Your task to perform on an android device: show emergency info Image 0: 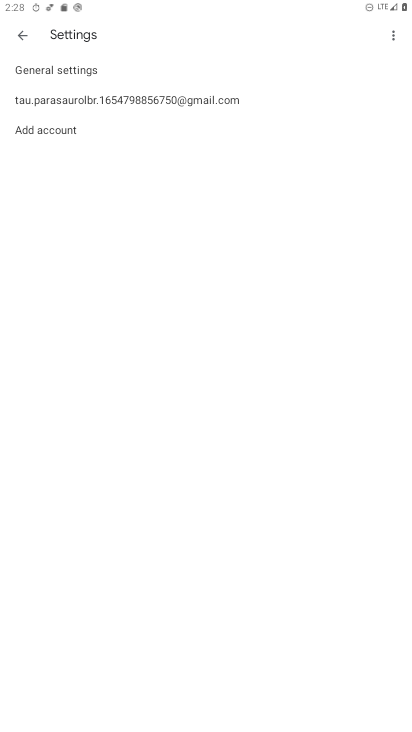
Step 0: click (76, 239)
Your task to perform on an android device: show emergency info Image 1: 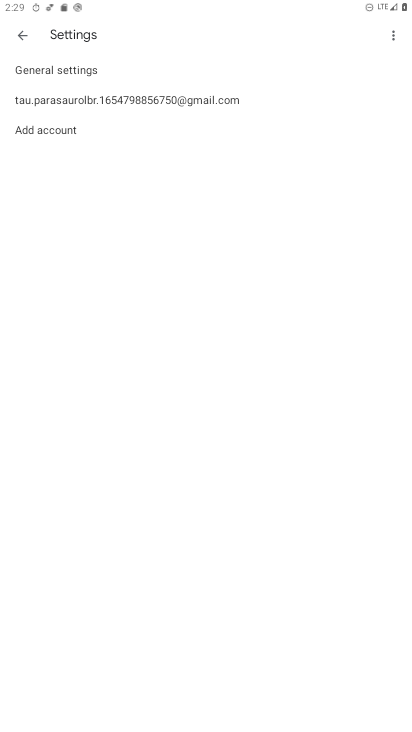
Step 1: press home button
Your task to perform on an android device: show emergency info Image 2: 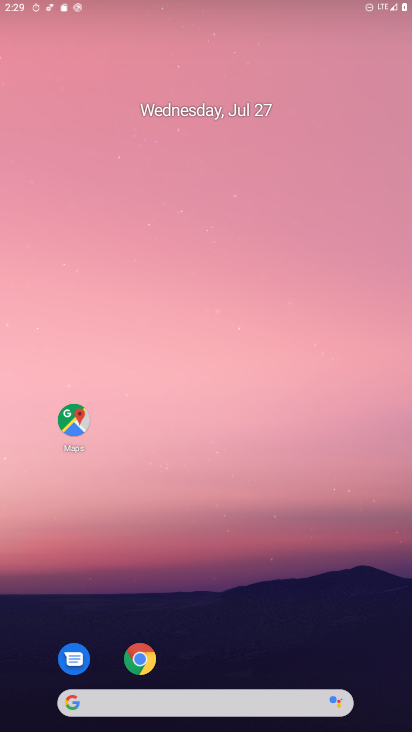
Step 2: drag from (295, 600) to (166, 63)
Your task to perform on an android device: show emergency info Image 3: 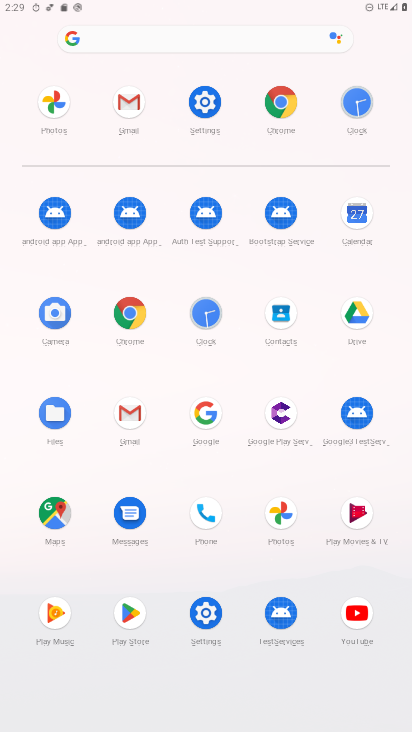
Step 3: click (192, 101)
Your task to perform on an android device: show emergency info Image 4: 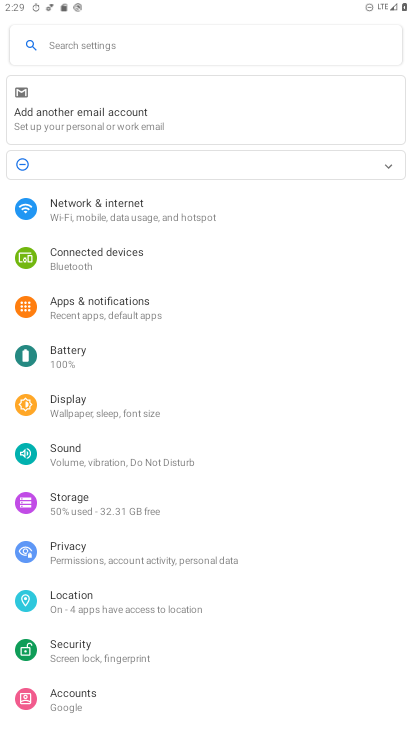
Step 4: drag from (261, 635) to (262, 95)
Your task to perform on an android device: show emergency info Image 5: 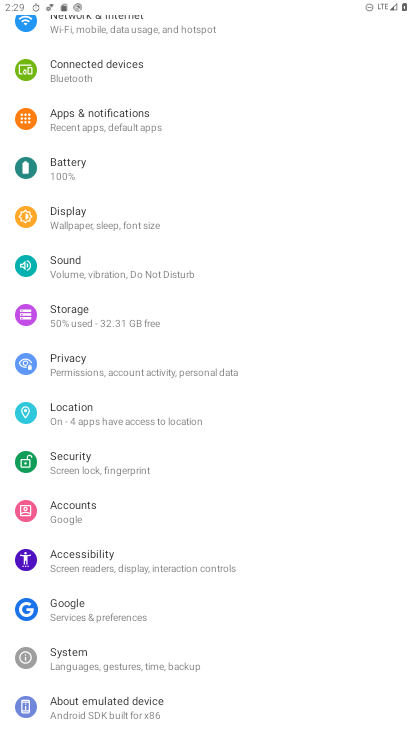
Step 5: click (95, 697)
Your task to perform on an android device: show emergency info Image 6: 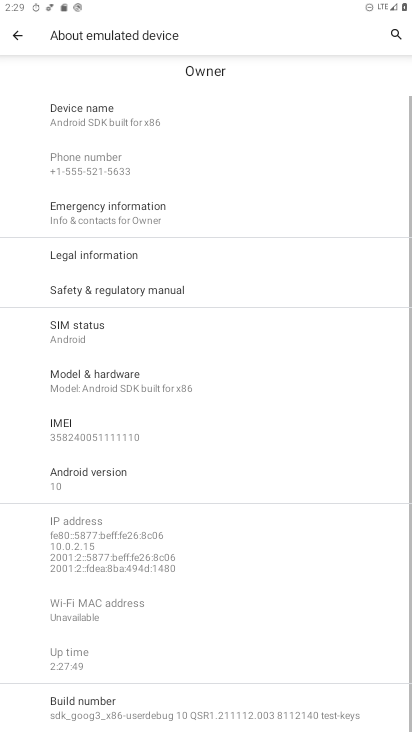
Step 6: click (149, 204)
Your task to perform on an android device: show emergency info Image 7: 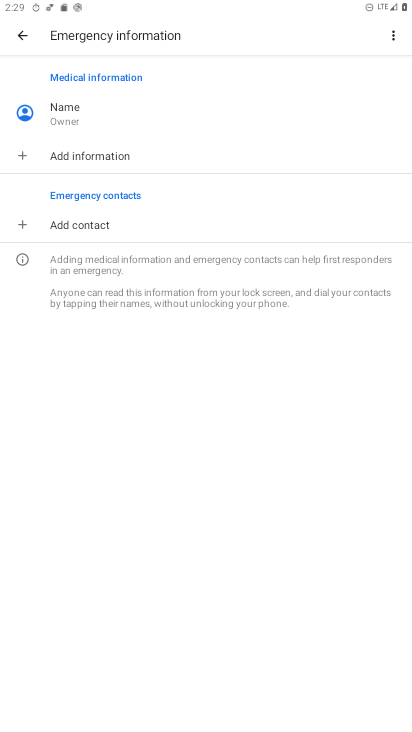
Step 7: task complete